Your task to perform on an android device: star an email in the gmail app Image 0: 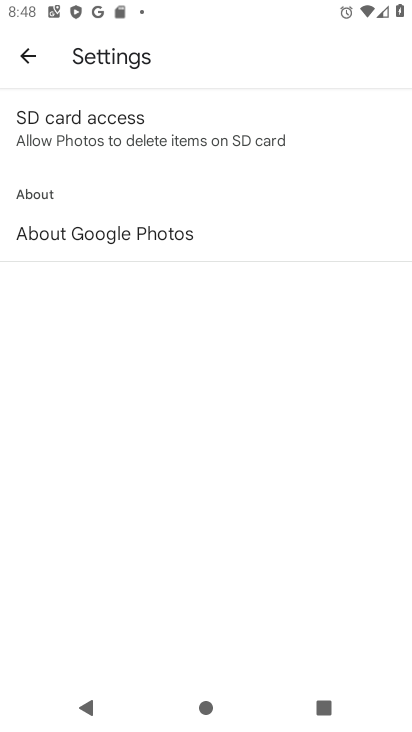
Step 0: press back button
Your task to perform on an android device: star an email in the gmail app Image 1: 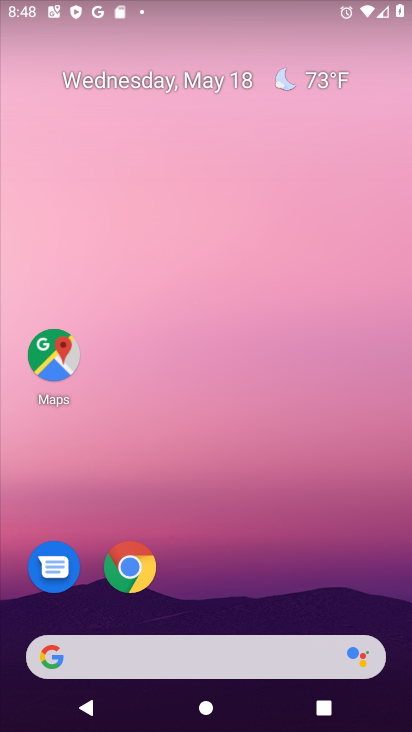
Step 1: drag from (220, 560) to (167, 28)
Your task to perform on an android device: star an email in the gmail app Image 2: 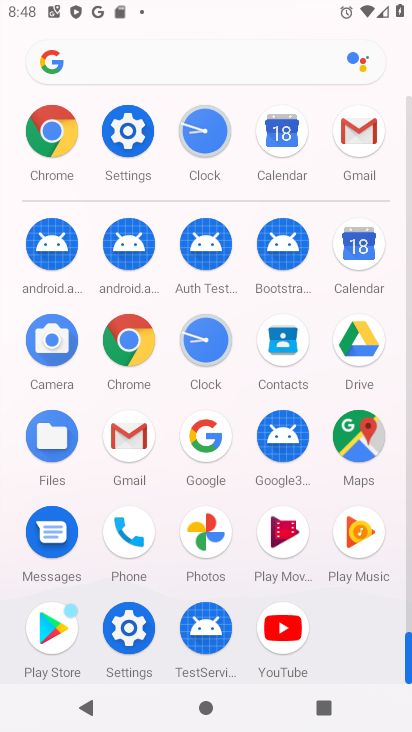
Step 2: click (128, 432)
Your task to perform on an android device: star an email in the gmail app Image 3: 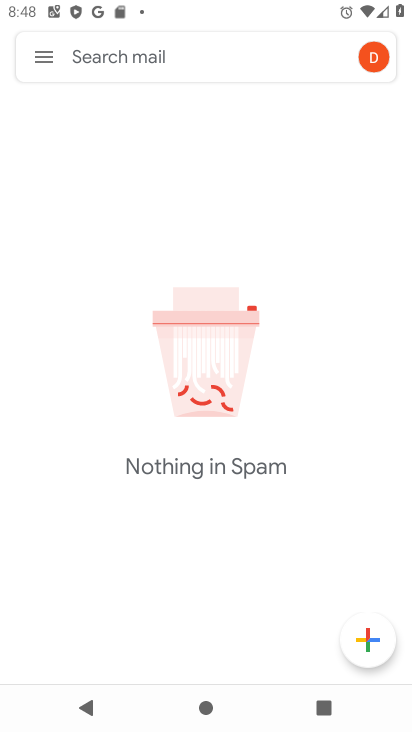
Step 3: click (38, 50)
Your task to perform on an android device: star an email in the gmail app Image 4: 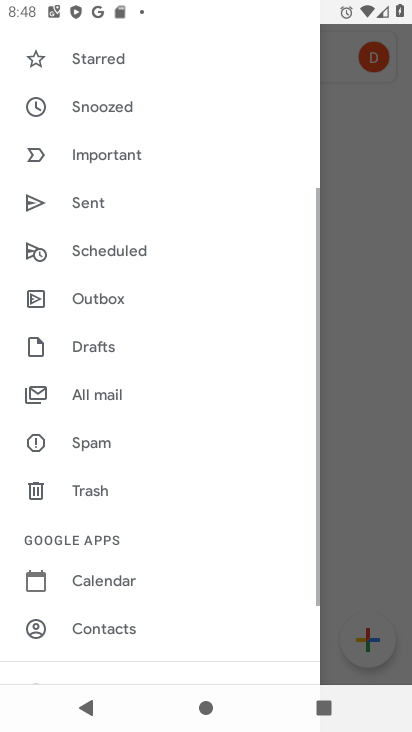
Step 4: drag from (172, 91) to (191, 506)
Your task to perform on an android device: star an email in the gmail app Image 5: 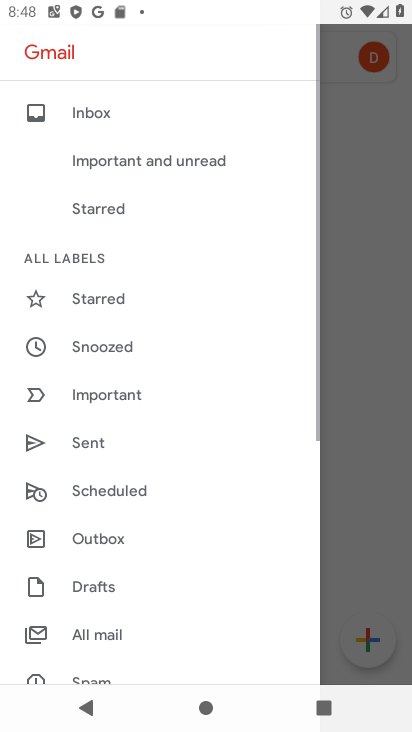
Step 5: click (116, 292)
Your task to perform on an android device: star an email in the gmail app Image 6: 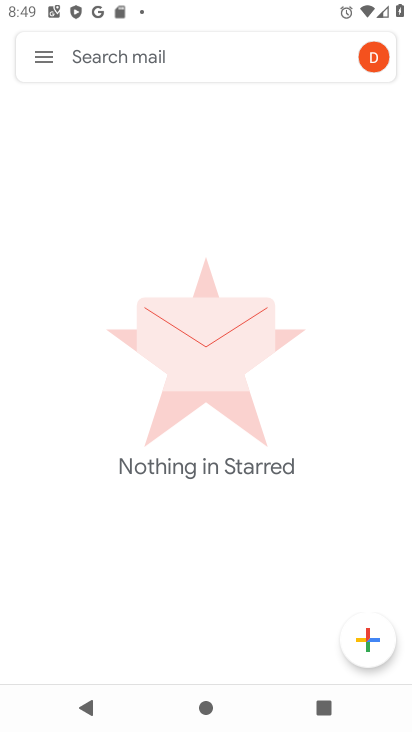
Step 6: task complete